Your task to perform on an android device: turn off location Image 0: 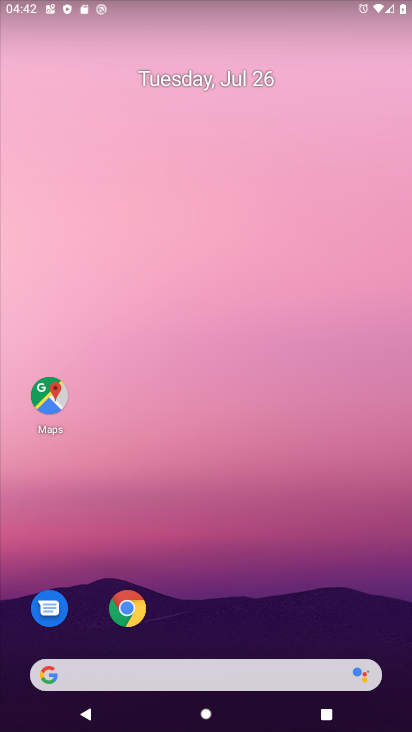
Step 0: drag from (399, 699) to (355, 101)
Your task to perform on an android device: turn off location Image 1: 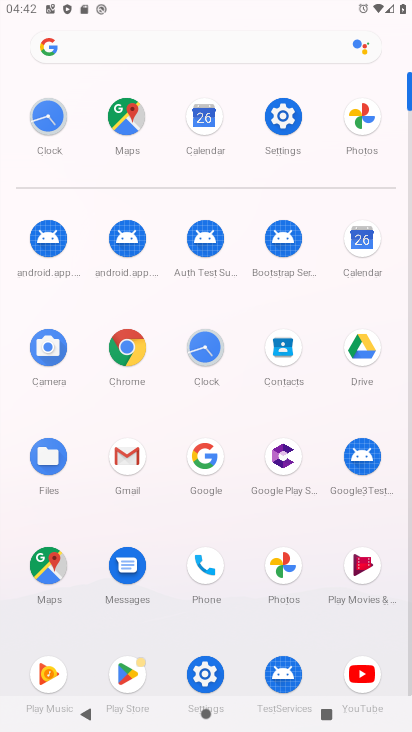
Step 1: click (286, 114)
Your task to perform on an android device: turn off location Image 2: 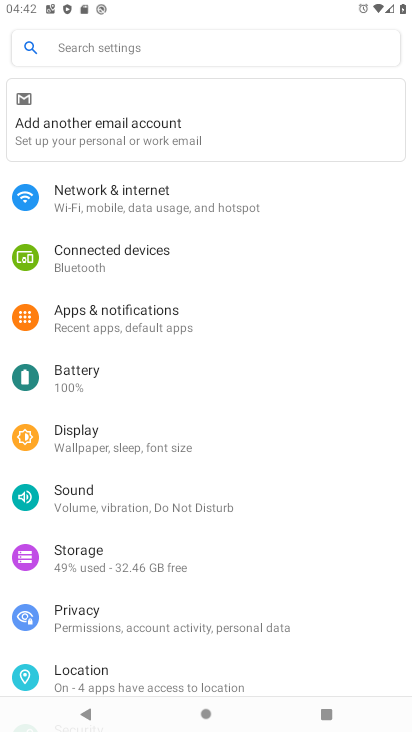
Step 2: click (60, 671)
Your task to perform on an android device: turn off location Image 3: 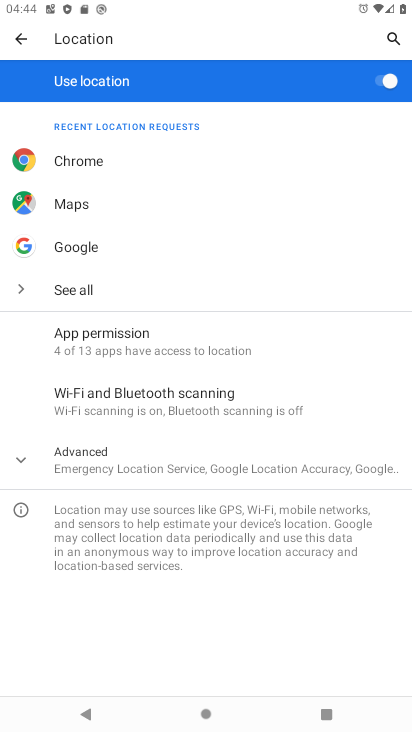
Step 3: click (374, 81)
Your task to perform on an android device: turn off location Image 4: 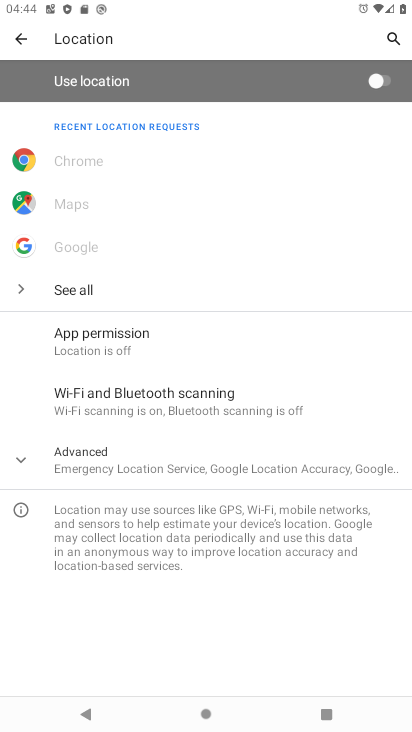
Step 4: task complete